Your task to perform on an android device: Open Chrome and go to settings Image 0: 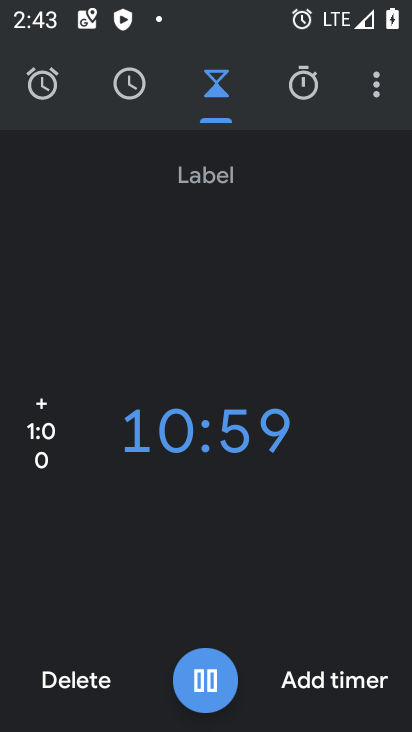
Step 0: press back button
Your task to perform on an android device: Open Chrome and go to settings Image 1: 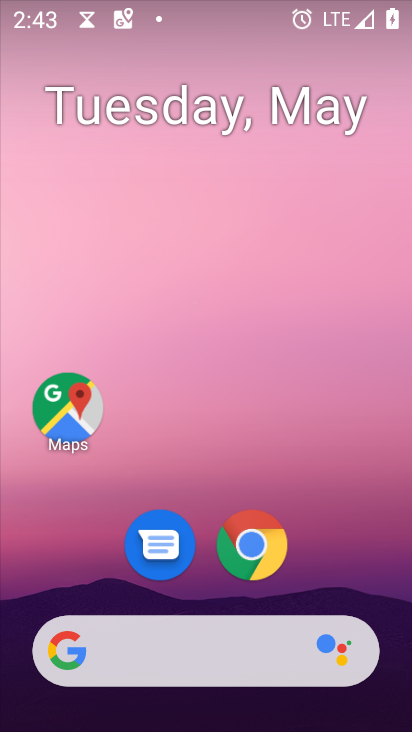
Step 1: drag from (366, 572) to (233, 41)
Your task to perform on an android device: Open Chrome and go to settings Image 2: 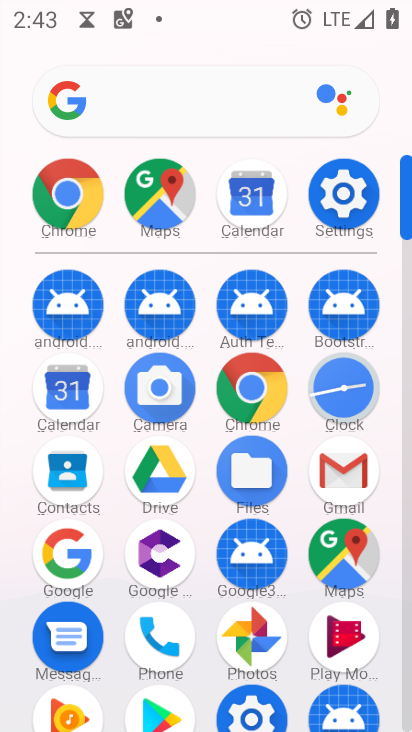
Step 2: click (69, 186)
Your task to perform on an android device: Open Chrome and go to settings Image 3: 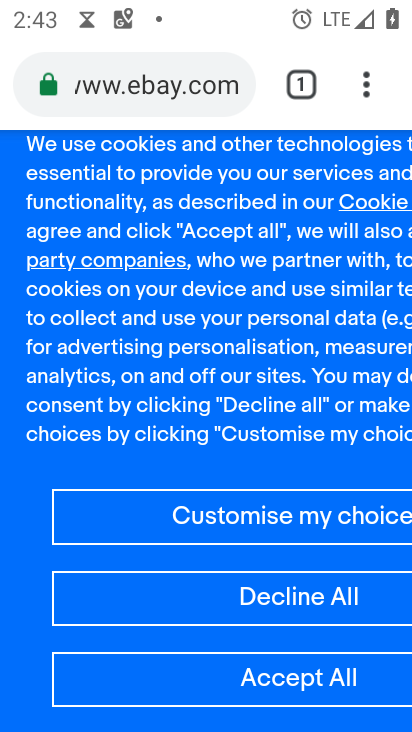
Step 3: task complete